Your task to perform on an android device: What's the weather today? Image 0: 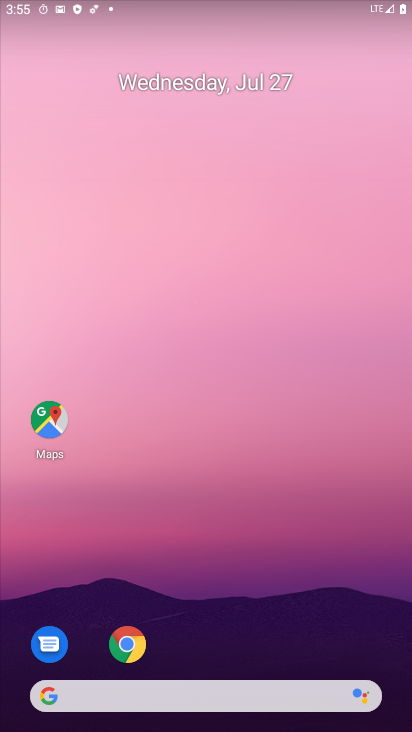
Step 0: drag from (221, 685) to (257, 135)
Your task to perform on an android device: What's the weather today? Image 1: 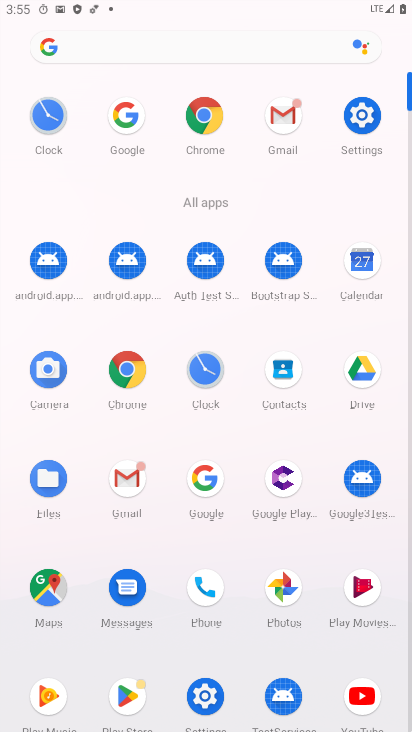
Step 1: click (196, 470)
Your task to perform on an android device: What's the weather today? Image 2: 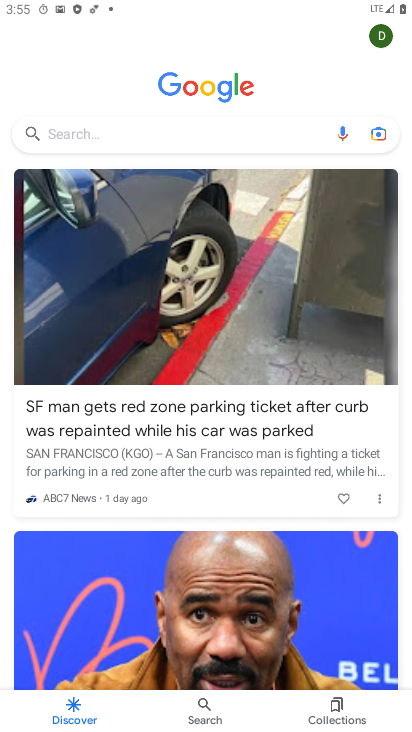
Step 2: click (139, 133)
Your task to perform on an android device: What's the weather today? Image 3: 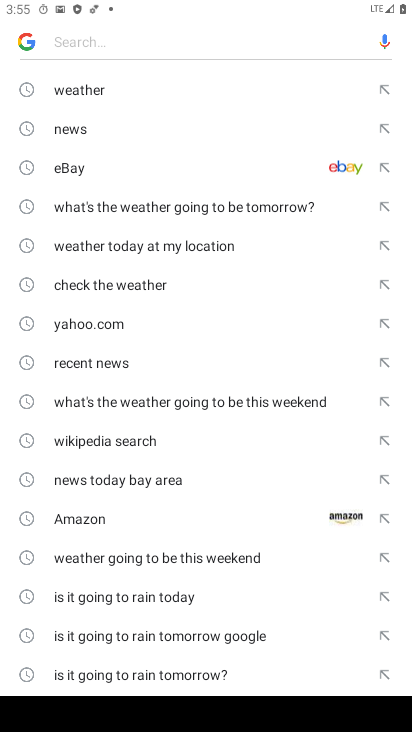
Step 3: click (76, 90)
Your task to perform on an android device: What's the weather today? Image 4: 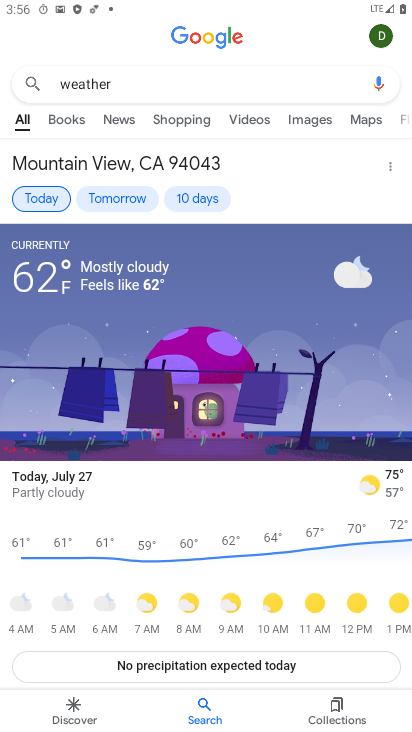
Step 4: click (53, 197)
Your task to perform on an android device: What's the weather today? Image 5: 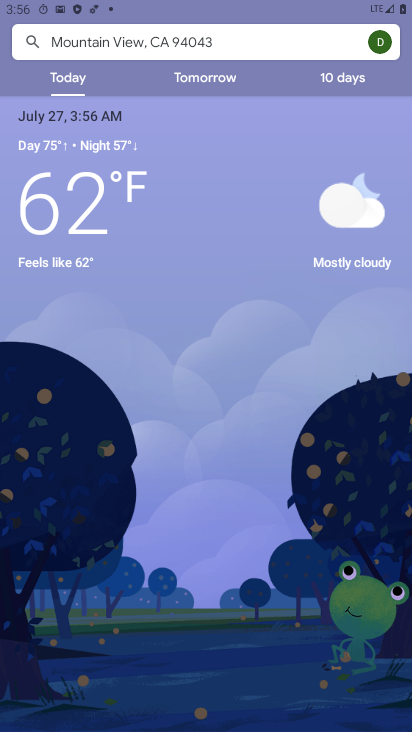
Step 5: task complete